Your task to perform on an android device: change the clock style Image 0: 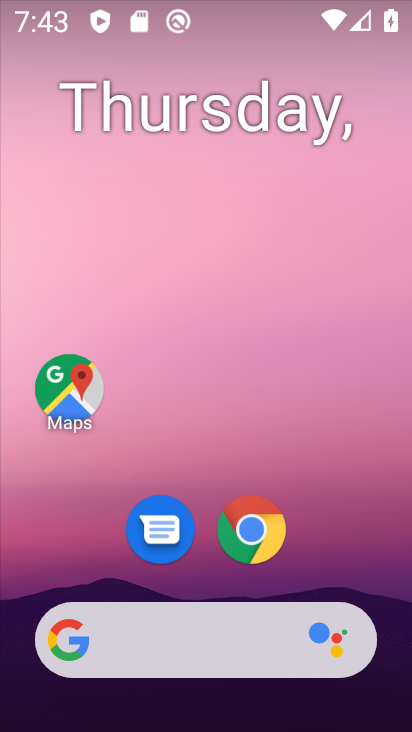
Step 0: click (25, 222)
Your task to perform on an android device: change the clock style Image 1: 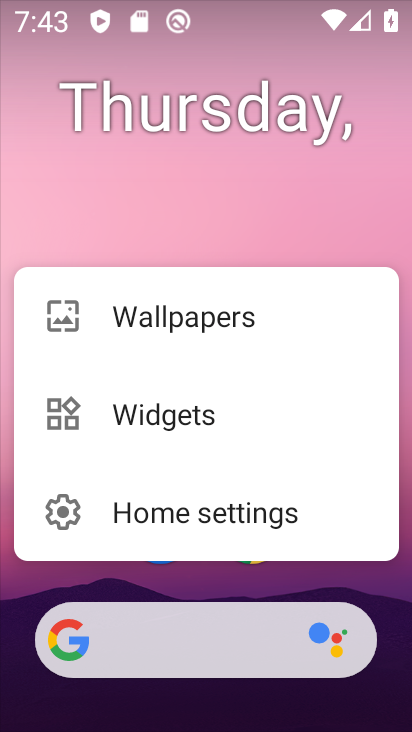
Step 1: drag from (303, 581) to (161, 47)
Your task to perform on an android device: change the clock style Image 2: 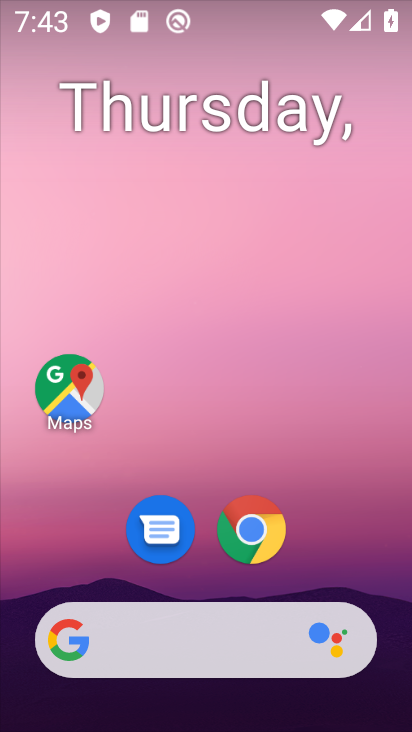
Step 2: click (104, 155)
Your task to perform on an android device: change the clock style Image 3: 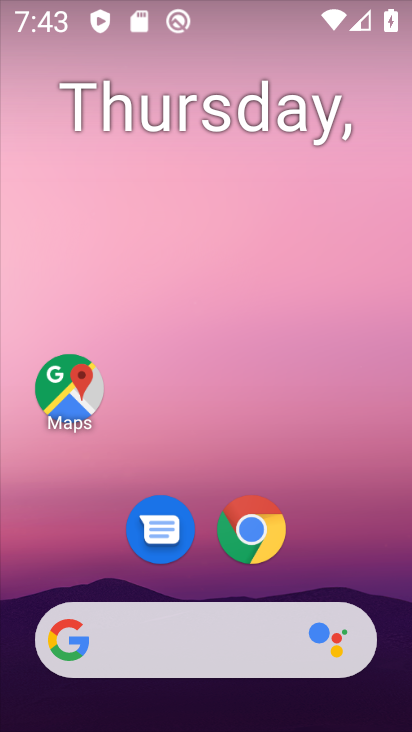
Step 3: click (75, 14)
Your task to perform on an android device: change the clock style Image 4: 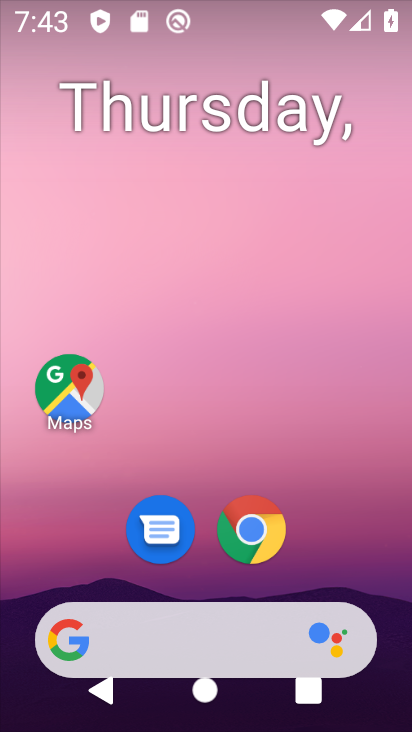
Step 4: click (183, 296)
Your task to perform on an android device: change the clock style Image 5: 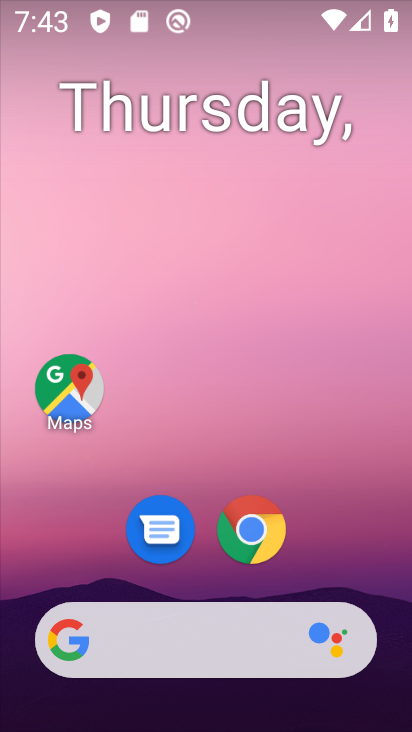
Step 5: drag from (289, 683) to (184, 3)
Your task to perform on an android device: change the clock style Image 6: 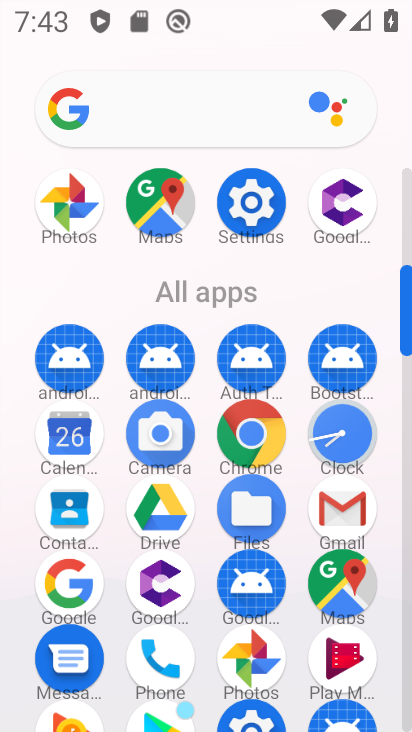
Step 6: drag from (288, 612) to (174, 123)
Your task to perform on an android device: change the clock style Image 7: 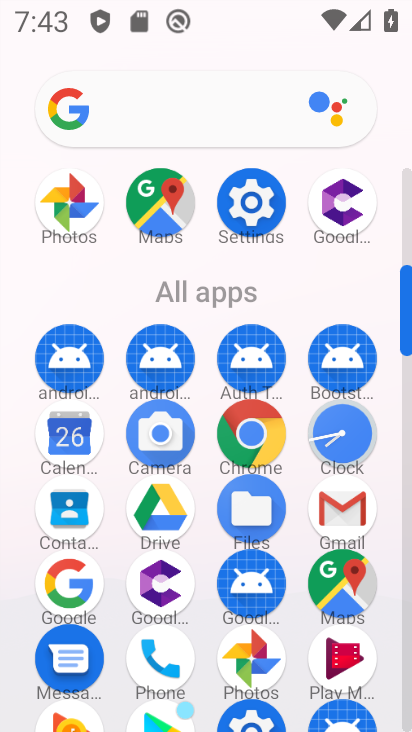
Step 7: drag from (253, 668) to (183, 143)
Your task to perform on an android device: change the clock style Image 8: 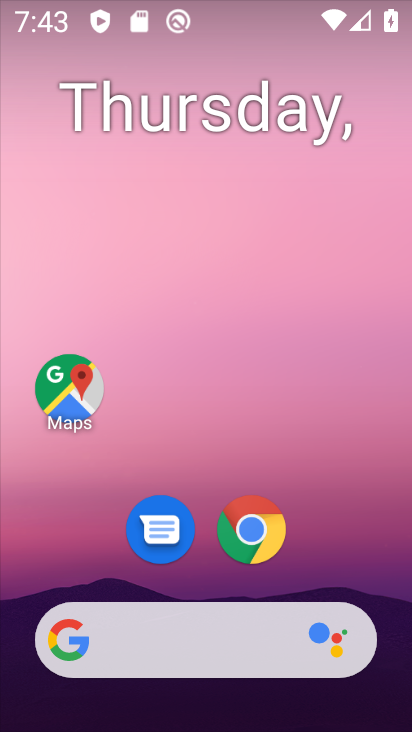
Step 8: drag from (245, 655) to (147, 0)
Your task to perform on an android device: change the clock style Image 9: 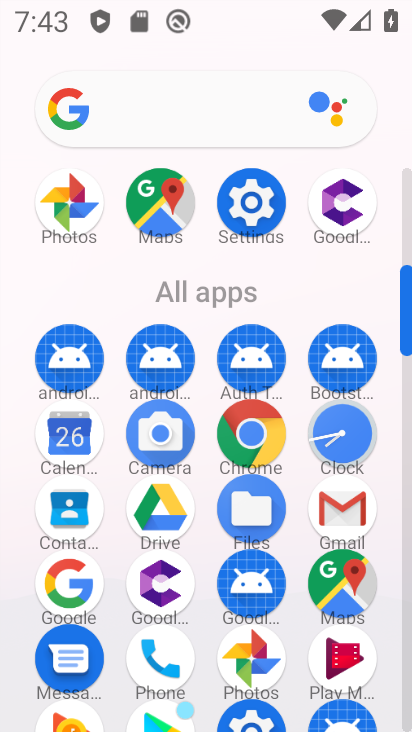
Step 9: drag from (277, 677) to (201, 37)
Your task to perform on an android device: change the clock style Image 10: 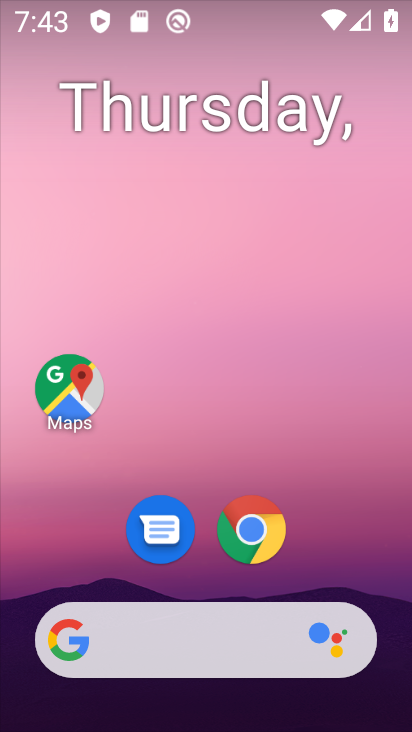
Step 10: drag from (312, 603) to (82, 79)
Your task to perform on an android device: change the clock style Image 11: 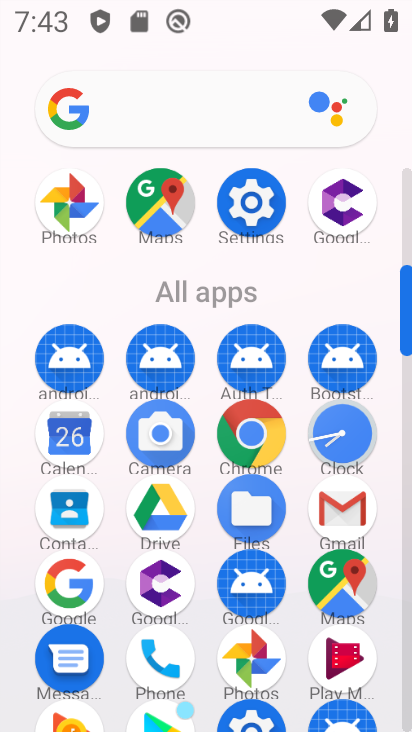
Step 11: drag from (266, 554) to (78, 12)
Your task to perform on an android device: change the clock style Image 12: 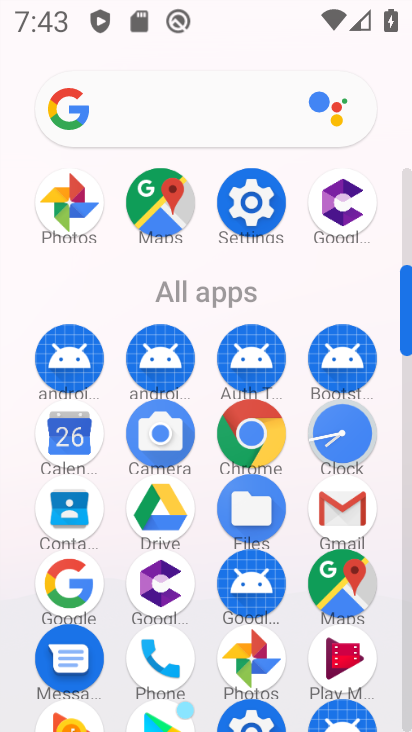
Step 12: click (326, 435)
Your task to perform on an android device: change the clock style Image 13: 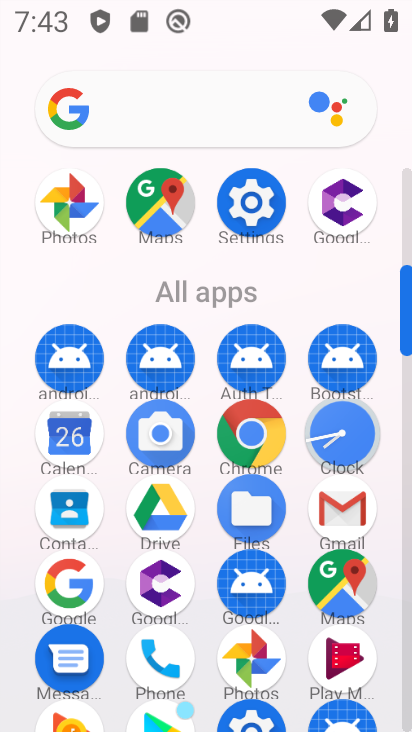
Step 13: click (326, 435)
Your task to perform on an android device: change the clock style Image 14: 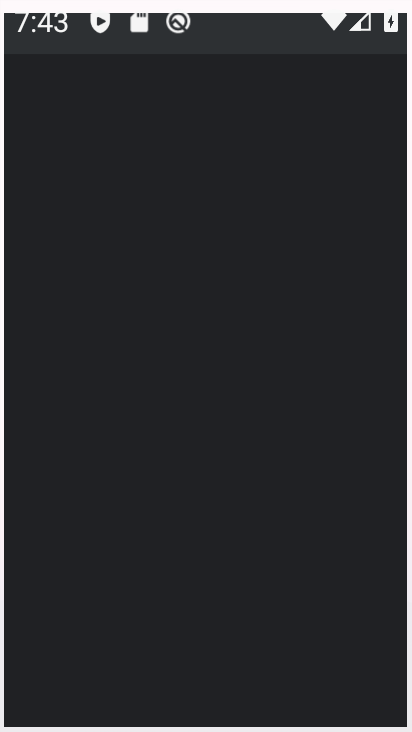
Step 14: click (328, 434)
Your task to perform on an android device: change the clock style Image 15: 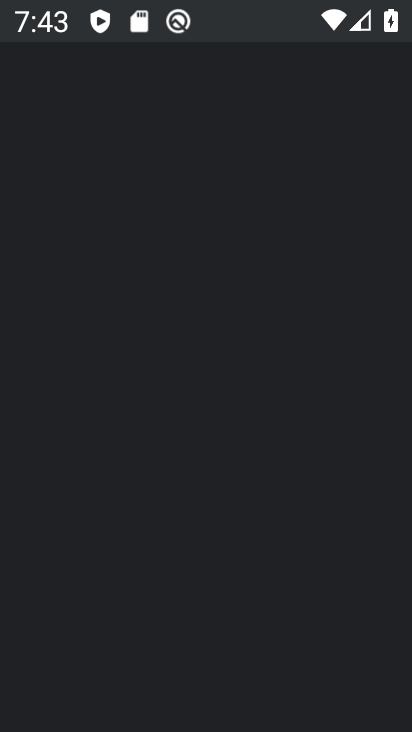
Step 15: click (328, 434)
Your task to perform on an android device: change the clock style Image 16: 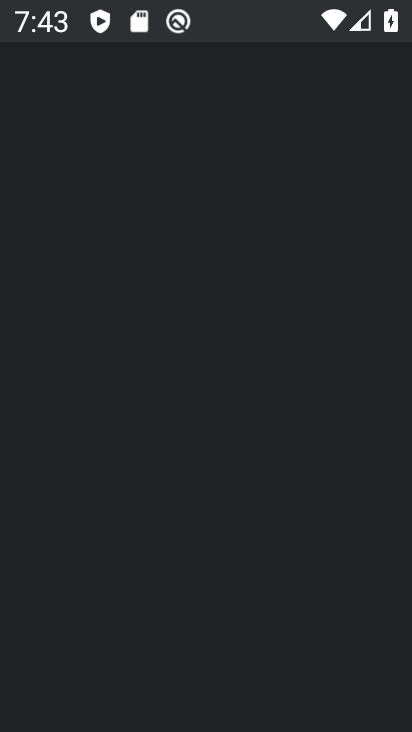
Step 16: click (330, 432)
Your task to perform on an android device: change the clock style Image 17: 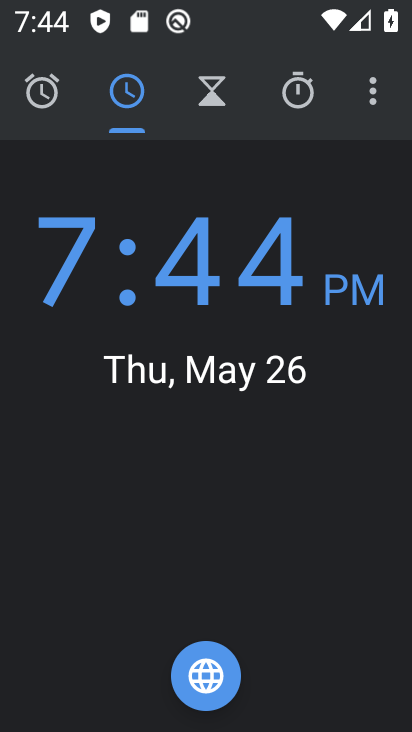
Step 17: click (373, 91)
Your task to perform on an android device: change the clock style Image 18: 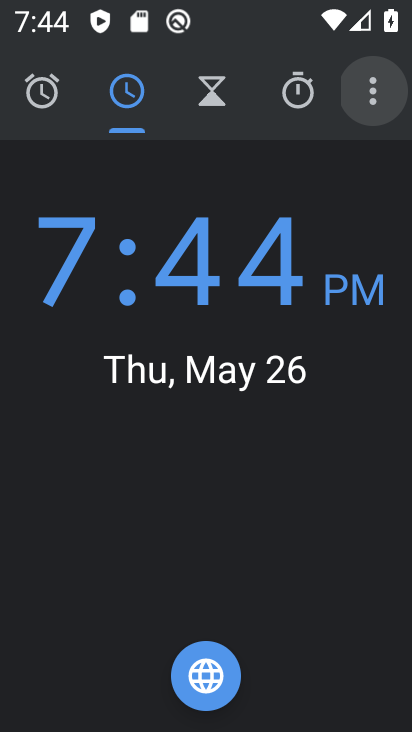
Step 18: click (374, 90)
Your task to perform on an android device: change the clock style Image 19: 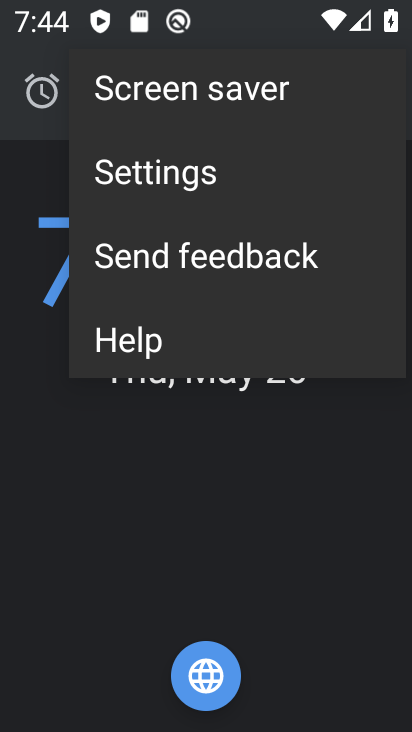
Step 19: click (375, 90)
Your task to perform on an android device: change the clock style Image 20: 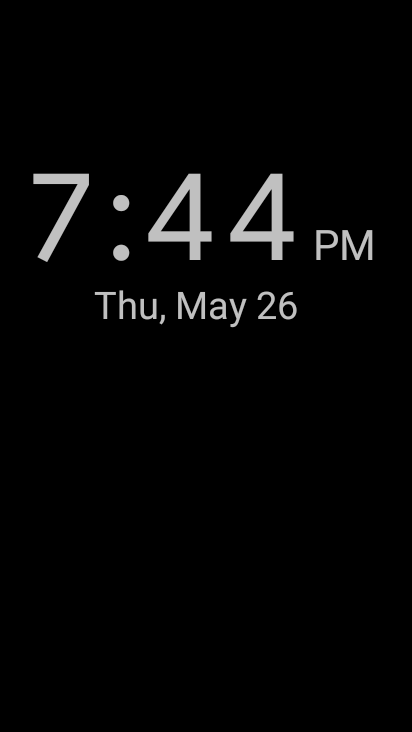
Step 20: press back button
Your task to perform on an android device: change the clock style Image 21: 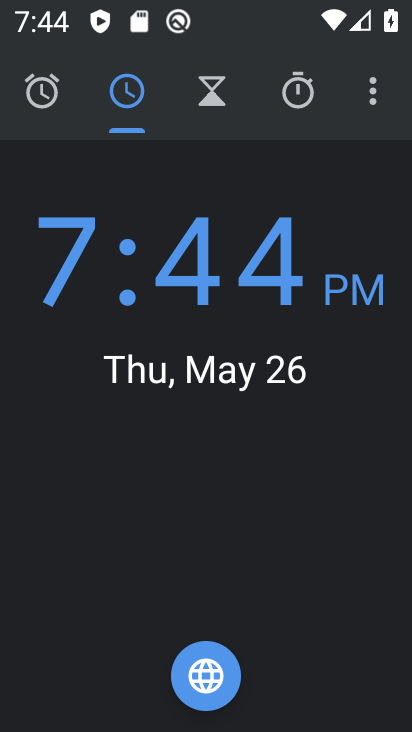
Step 21: click (367, 85)
Your task to perform on an android device: change the clock style Image 22: 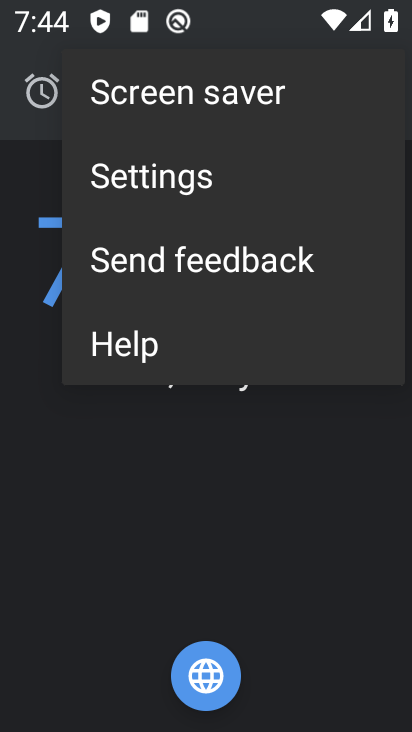
Step 22: click (161, 162)
Your task to perform on an android device: change the clock style Image 23: 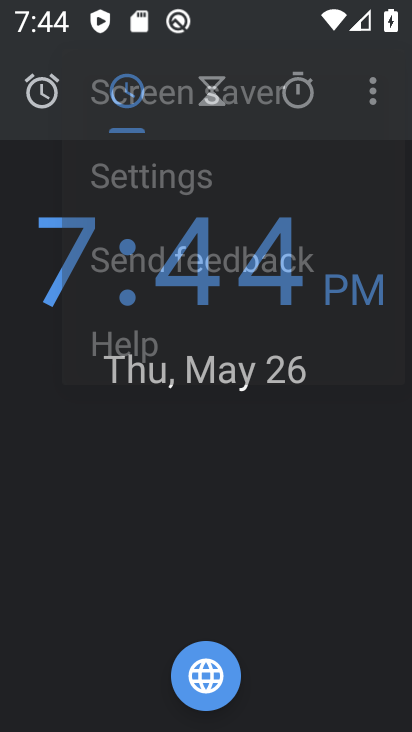
Step 23: click (161, 163)
Your task to perform on an android device: change the clock style Image 24: 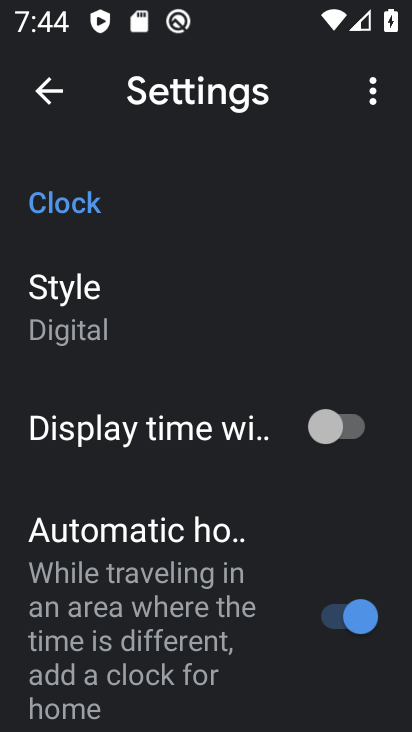
Step 24: click (101, 291)
Your task to perform on an android device: change the clock style Image 25: 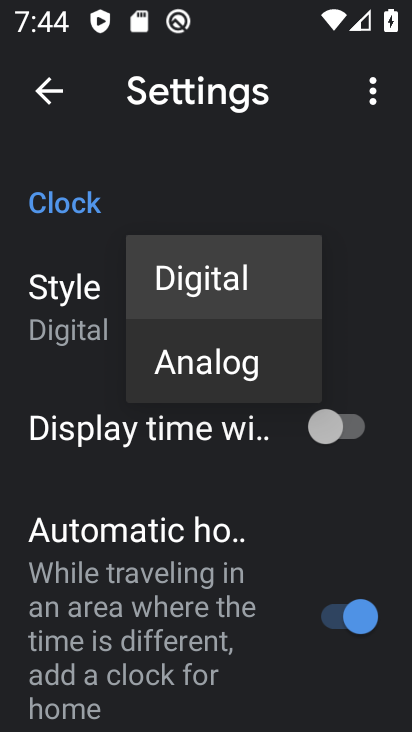
Step 25: click (208, 368)
Your task to perform on an android device: change the clock style Image 26: 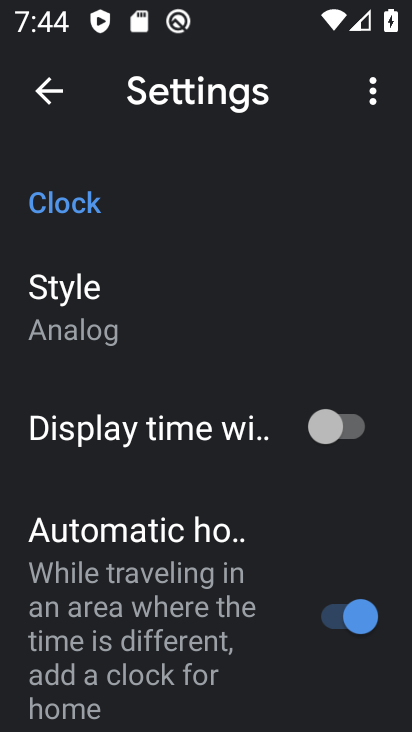
Step 26: press back button
Your task to perform on an android device: change the clock style Image 27: 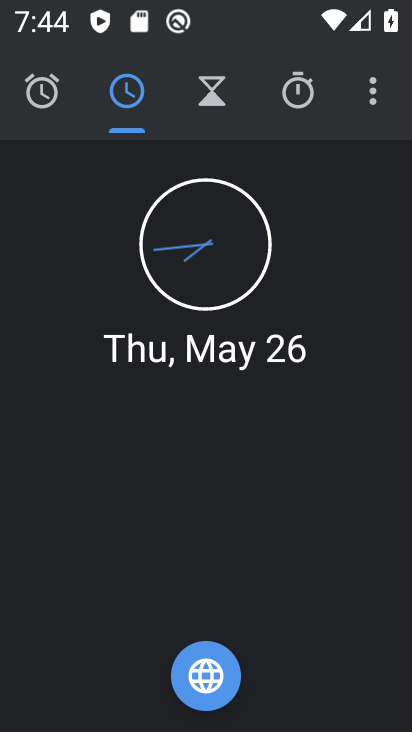
Step 27: press back button
Your task to perform on an android device: change the clock style Image 28: 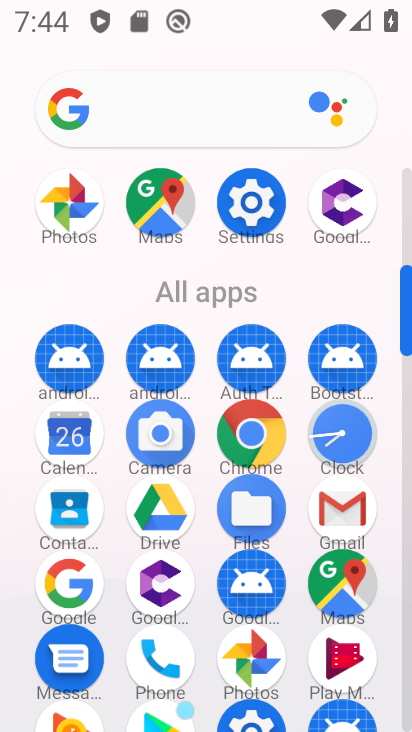
Step 28: click (338, 437)
Your task to perform on an android device: change the clock style Image 29: 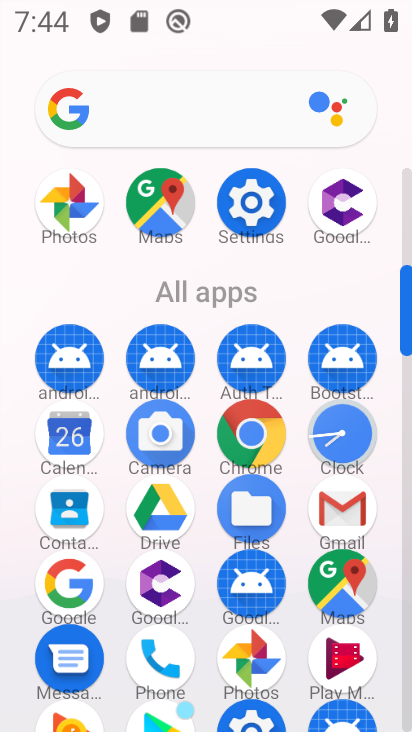
Step 29: click (336, 436)
Your task to perform on an android device: change the clock style Image 30: 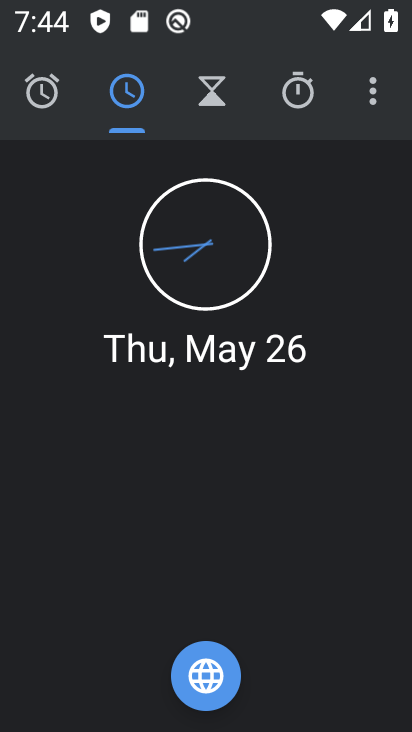
Step 30: click (339, 420)
Your task to perform on an android device: change the clock style Image 31: 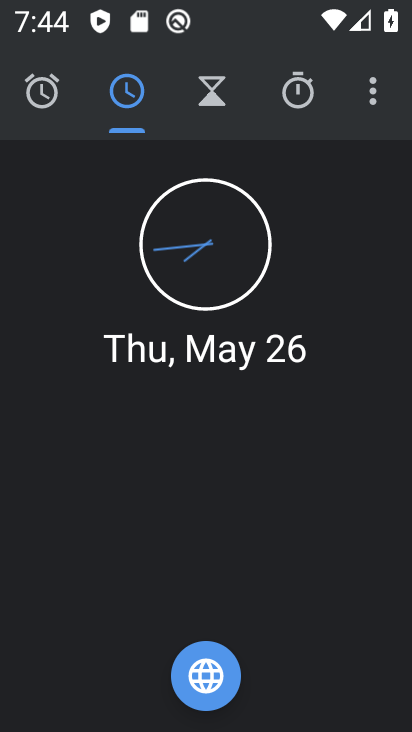
Step 31: click (342, 417)
Your task to perform on an android device: change the clock style Image 32: 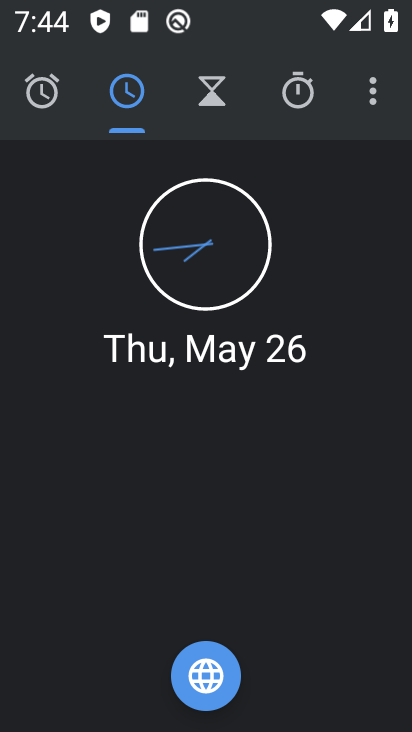
Step 32: click (342, 416)
Your task to perform on an android device: change the clock style Image 33: 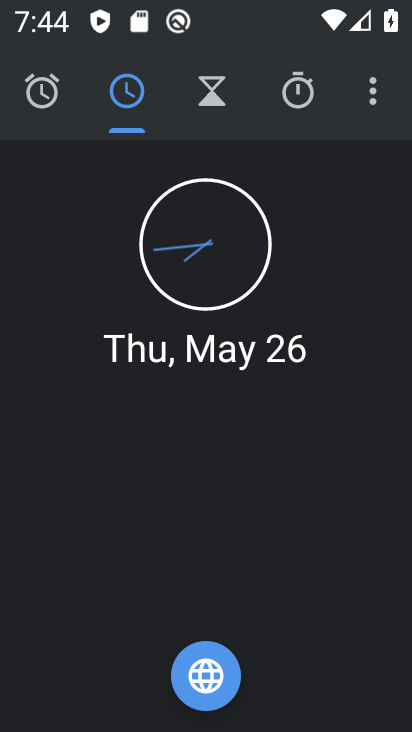
Step 33: click (372, 102)
Your task to perform on an android device: change the clock style Image 34: 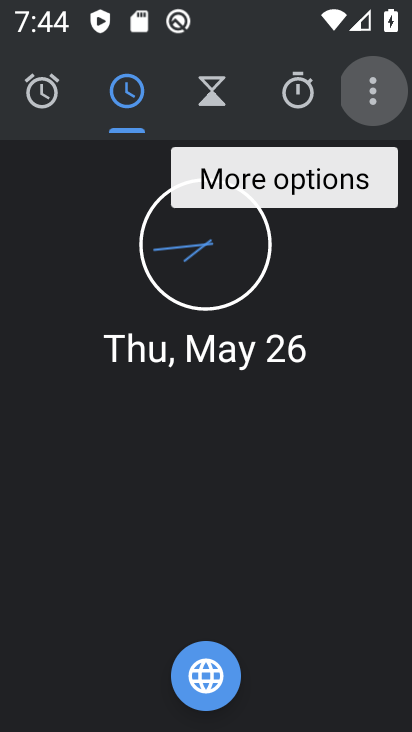
Step 34: click (376, 98)
Your task to perform on an android device: change the clock style Image 35: 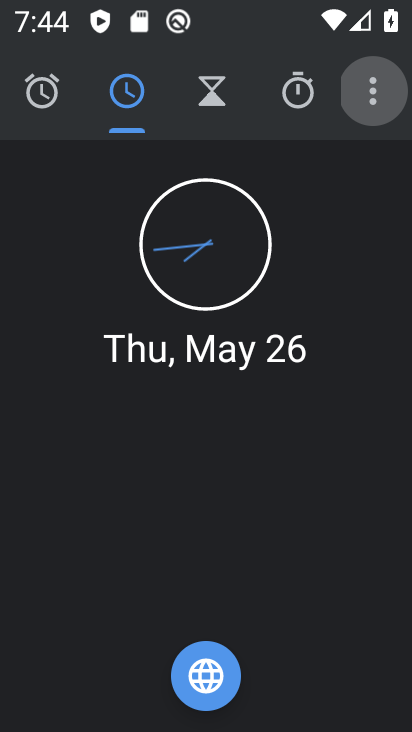
Step 35: click (376, 98)
Your task to perform on an android device: change the clock style Image 36: 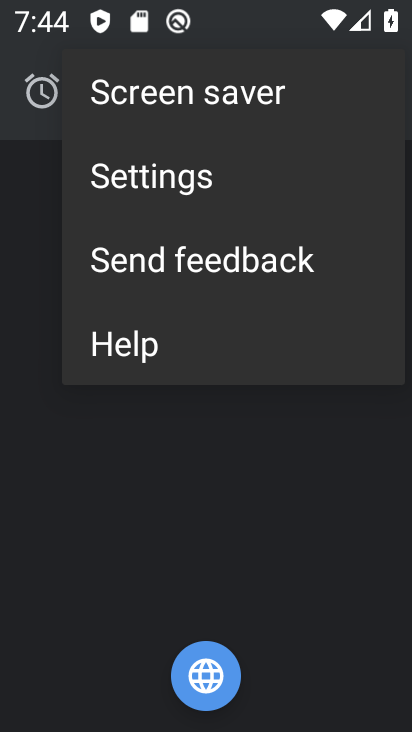
Step 36: click (185, 187)
Your task to perform on an android device: change the clock style Image 37: 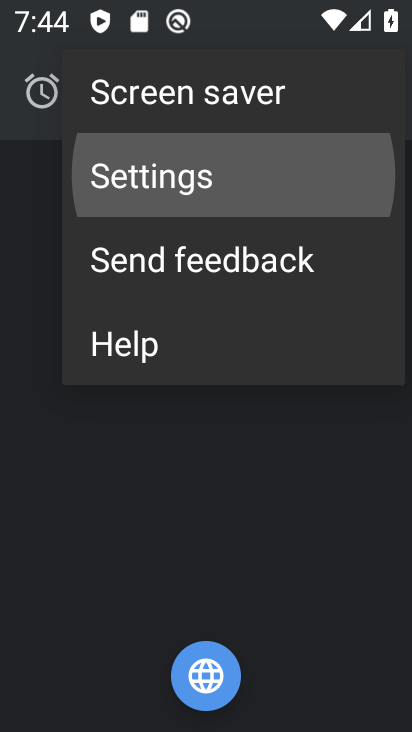
Step 37: click (185, 187)
Your task to perform on an android device: change the clock style Image 38: 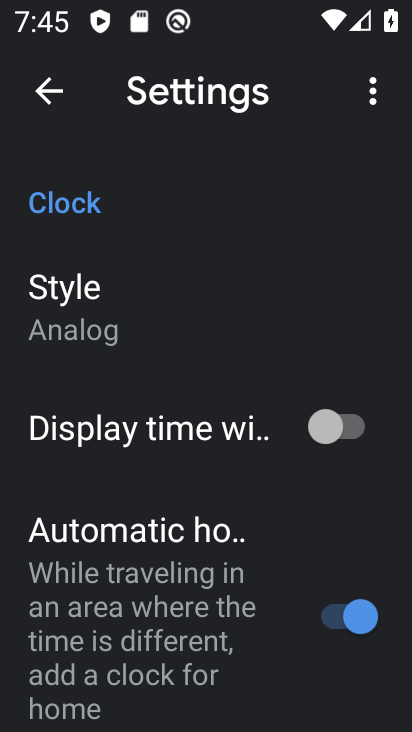
Step 38: click (127, 316)
Your task to perform on an android device: change the clock style Image 39: 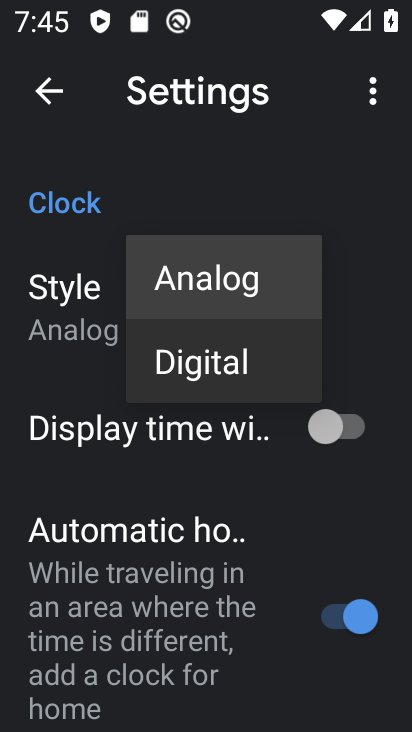
Step 39: click (211, 370)
Your task to perform on an android device: change the clock style Image 40: 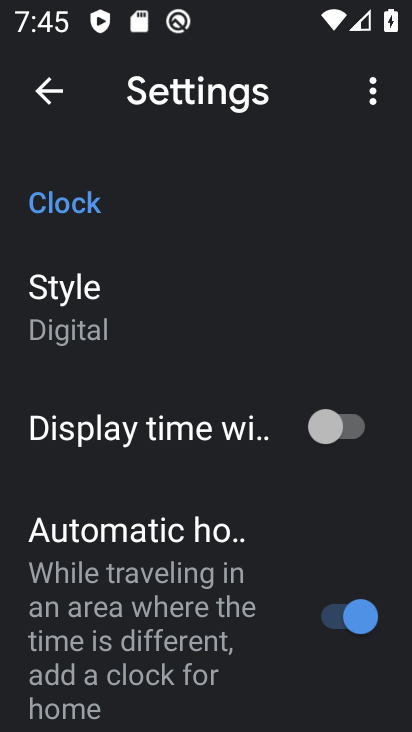
Step 40: task complete